Your task to perform on an android device: Open accessibility settings Image 0: 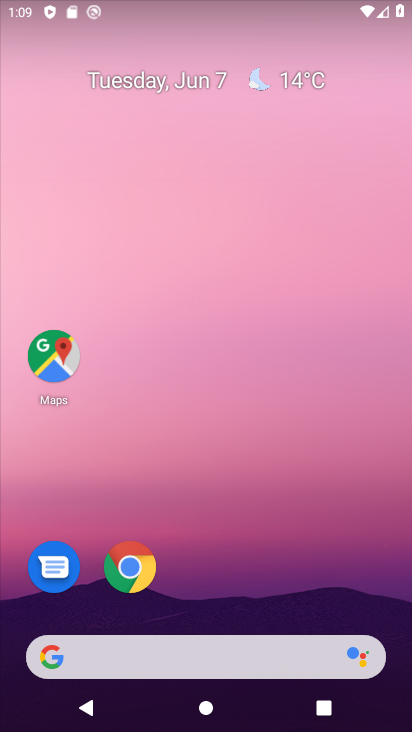
Step 0: drag from (240, 586) to (208, 69)
Your task to perform on an android device: Open accessibility settings Image 1: 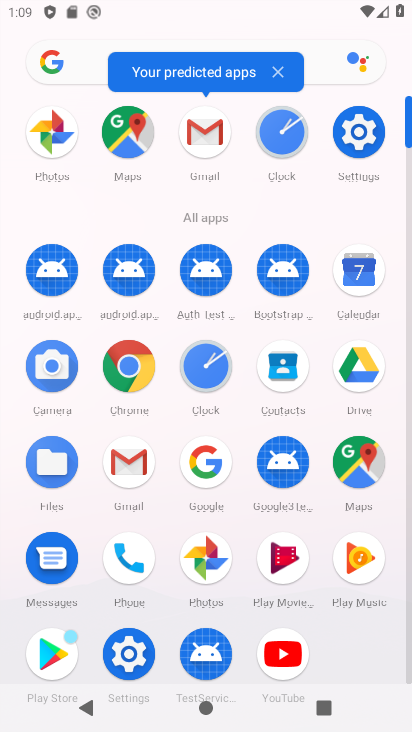
Step 1: click (360, 137)
Your task to perform on an android device: Open accessibility settings Image 2: 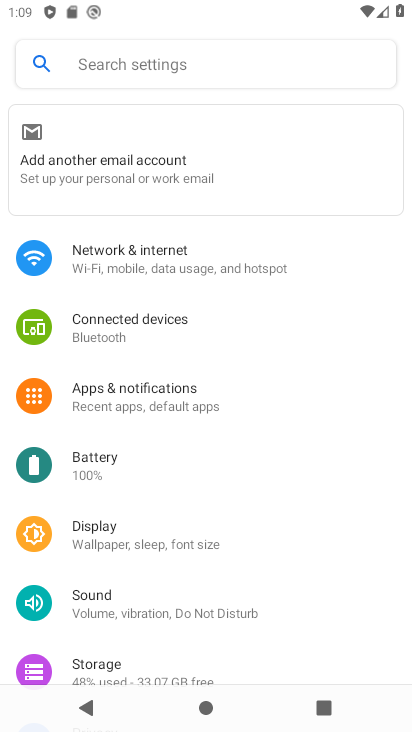
Step 2: drag from (162, 642) to (133, 82)
Your task to perform on an android device: Open accessibility settings Image 3: 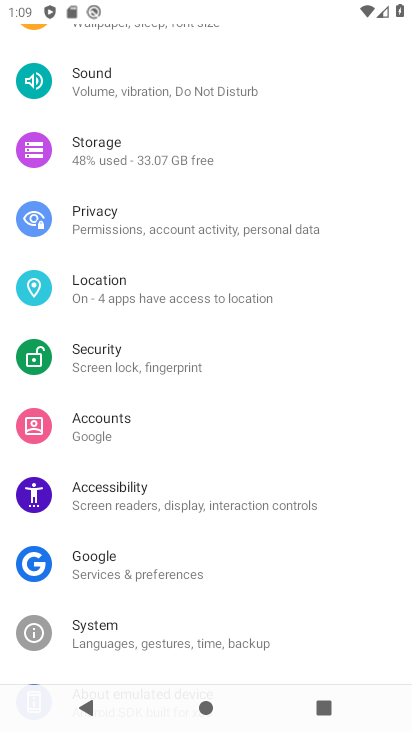
Step 3: click (99, 501)
Your task to perform on an android device: Open accessibility settings Image 4: 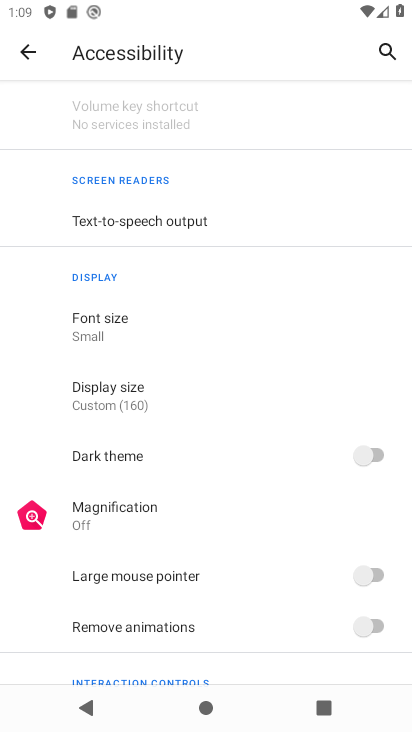
Step 4: task complete